Your task to perform on an android device: What's the weather going to be tomorrow? Image 0: 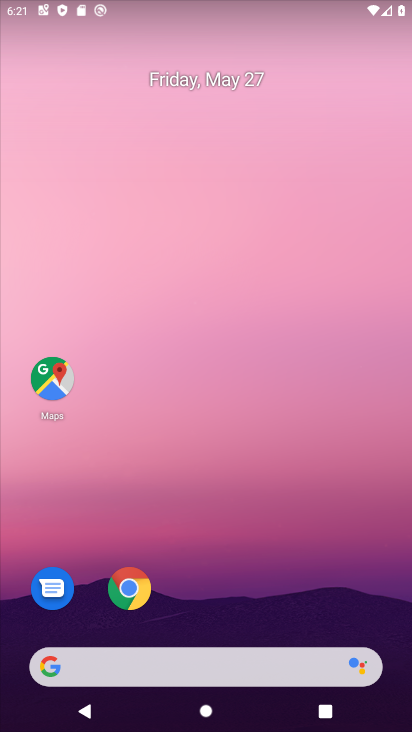
Step 0: drag from (245, 607) to (221, 167)
Your task to perform on an android device: What's the weather going to be tomorrow? Image 1: 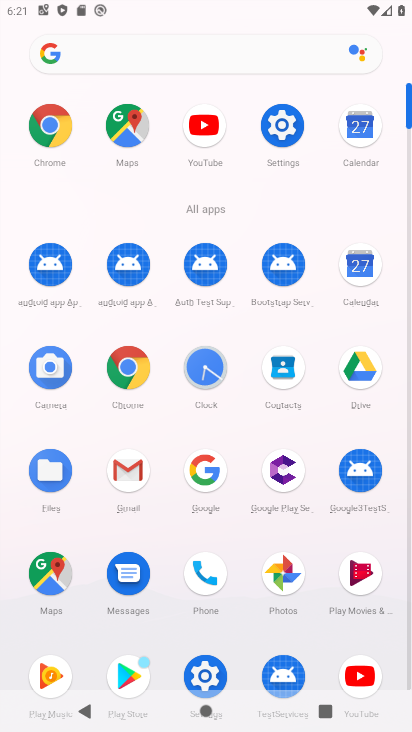
Step 1: click (135, 363)
Your task to perform on an android device: What's the weather going to be tomorrow? Image 2: 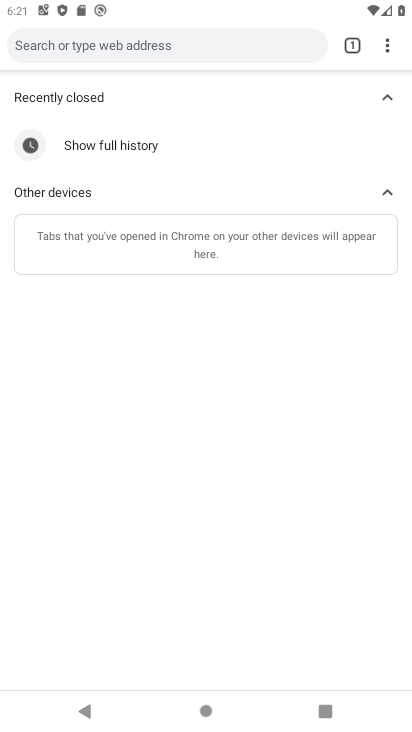
Step 2: click (189, 44)
Your task to perform on an android device: What's the weather going to be tomorrow? Image 3: 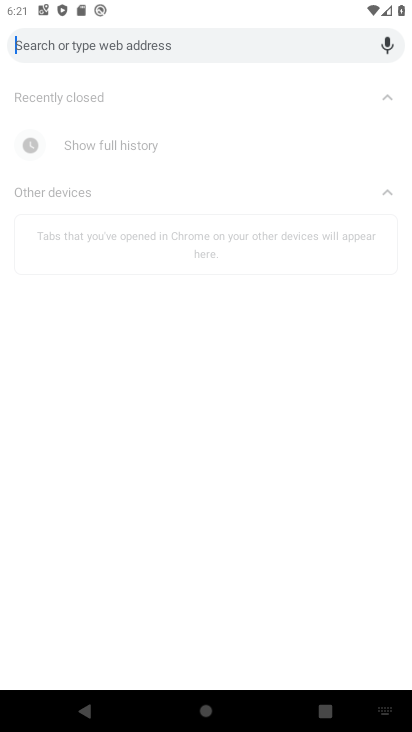
Step 3: type "What's the weather going to be tomorrow?"
Your task to perform on an android device: What's the weather going to be tomorrow? Image 4: 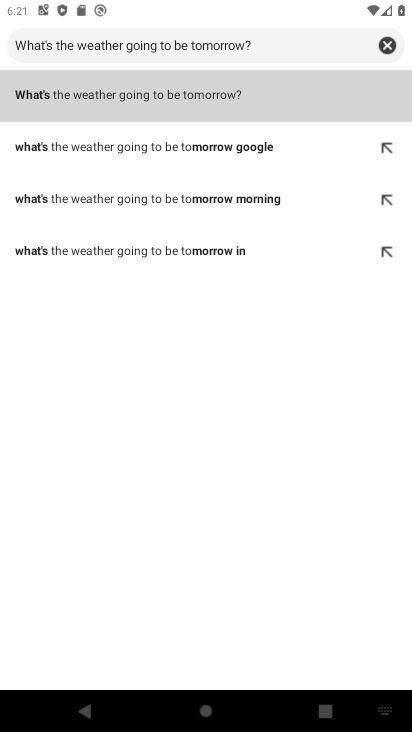
Step 4: click (163, 93)
Your task to perform on an android device: What's the weather going to be tomorrow? Image 5: 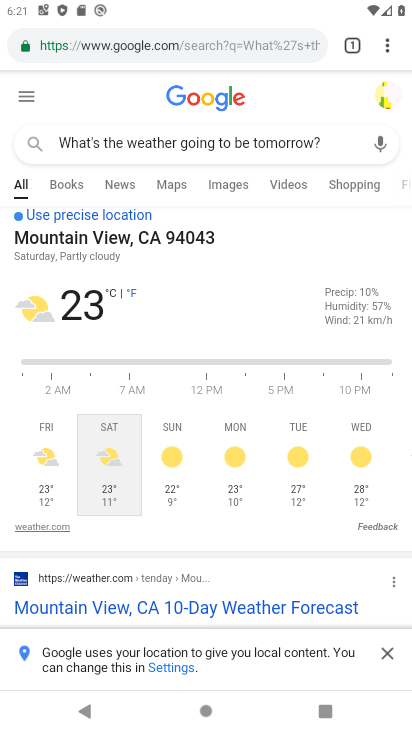
Step 5: task complete